Your task to perform on an android device: Open maps Image 0: 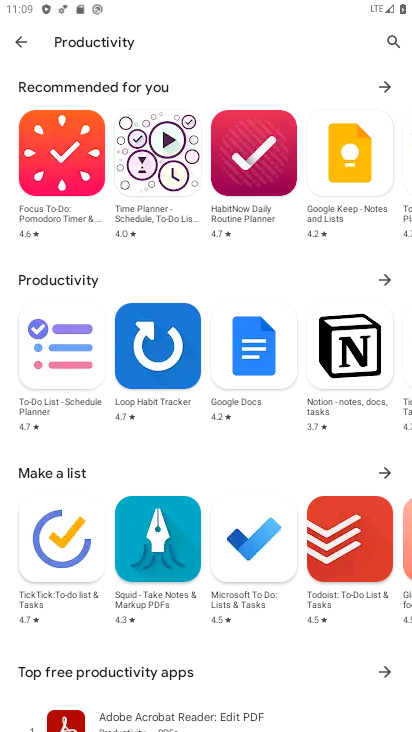
Step 0: press home button
Your task to perform on an android device: Open maps Image 1: 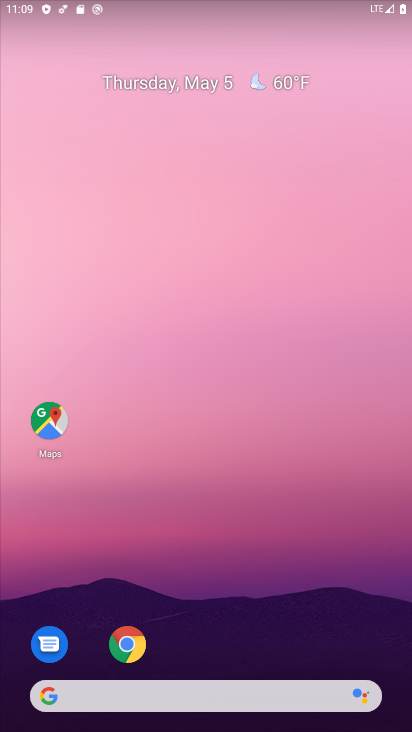
Step 1: drag from (331, 635) to (296, 251)
Your task to perform on an android device: Open maps Image 2: 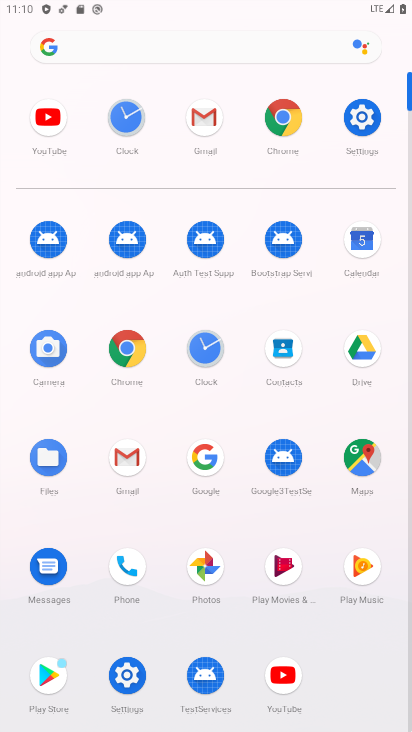
Step 2: click (359, 447)
Your task to perform on an android device: Open maps Image 3: 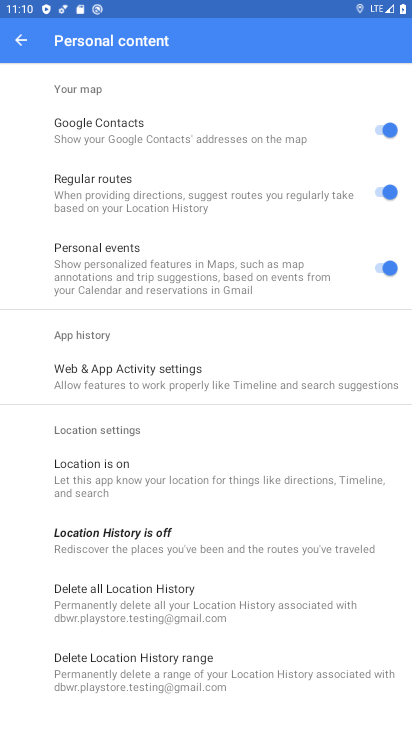
Step 3: click (16, 38)
Your task to perform on an android device: Open maps Image 4: 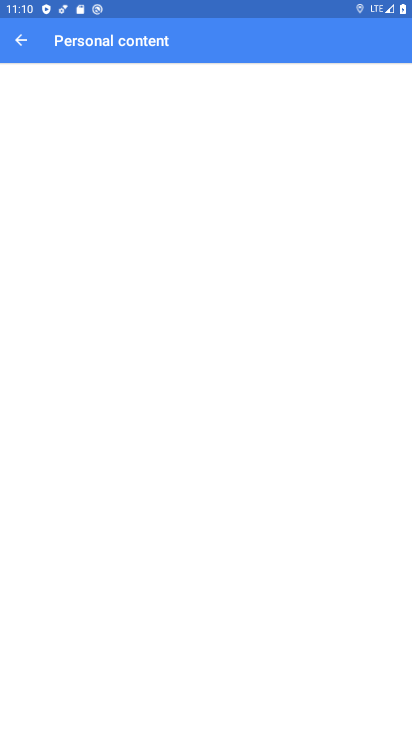
Step 4: click (17, 38)
Your task to perform on an android device: Open maps Image 5: 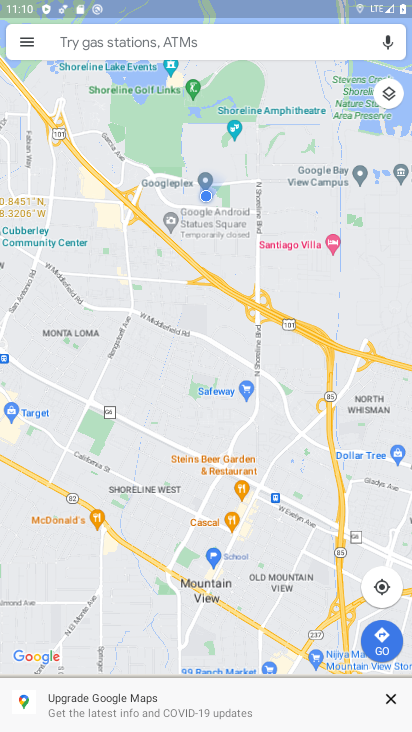
Step 5: task complete